Your task to perform on an android device: change notifications settings Image 0: 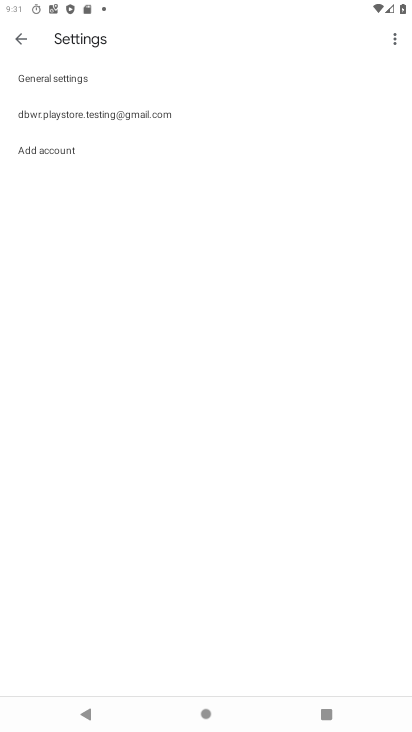
Step 0: press home button
Your task to perform on an android device: change notifications settings Image 1: 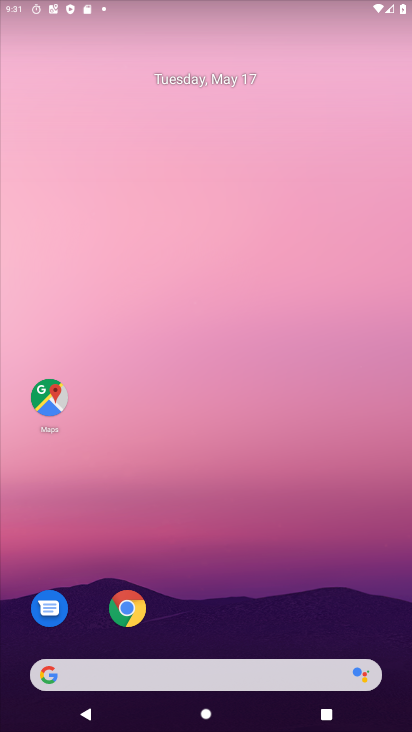
Step 1: drag from (366, 540) to (360, 239)
Your task to perform on an android device: change notifications settings Image 2: 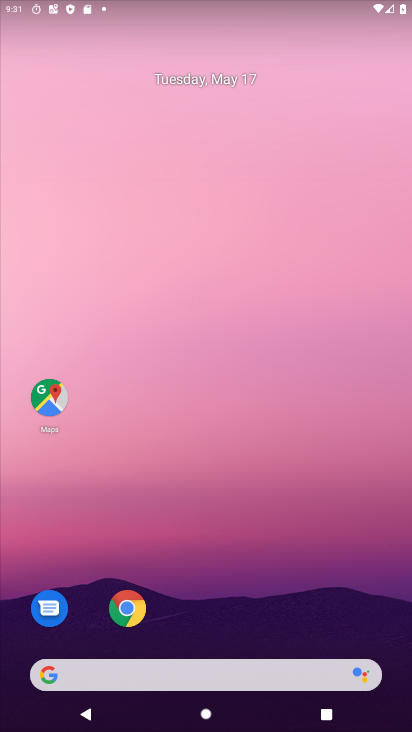
Step 2: drag from (364, 586) to (355, 187)
Your task to perform on an android device: change notifications settings Image 3: 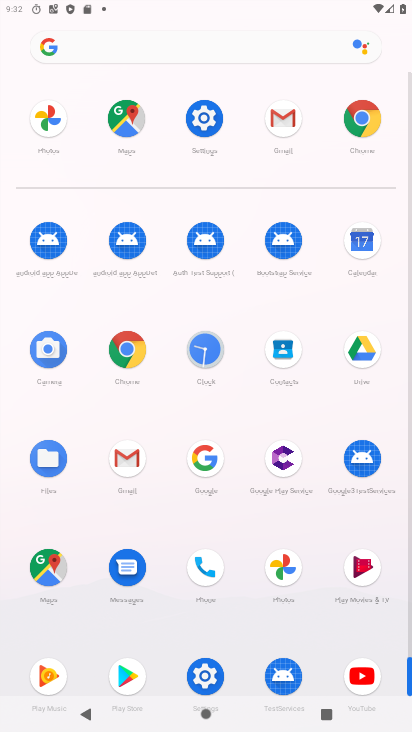
Step 3: click (213, 676)
Your task to perform on an android device: change notifications settings Image 4: 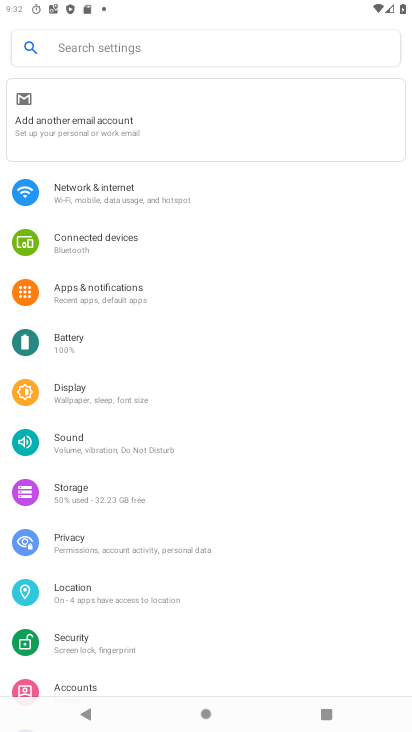
Step 4: click (118, 299)
Your task to perform on an android device: change notifications settings Image 5: 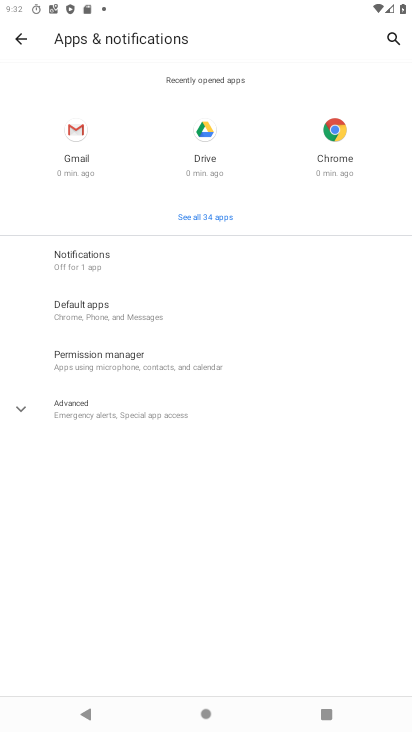
Step 5: click (101, 274)
Your task to perform on an android device: change notifications settings Image 6: 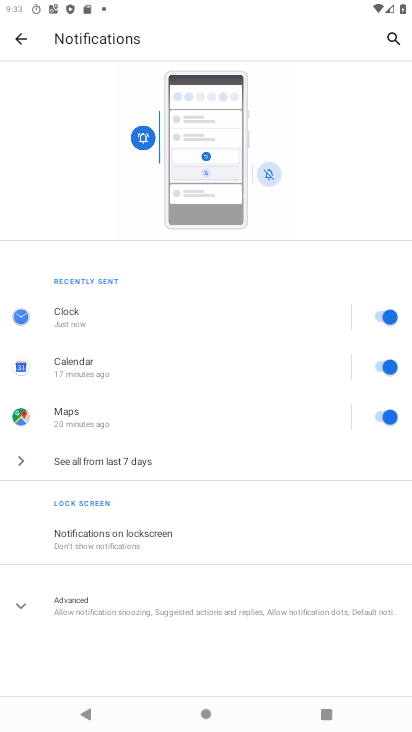
Step 6: task complete